Your task to perform on an android device: open app "Spotify: Music and Podcasts" Image 0: 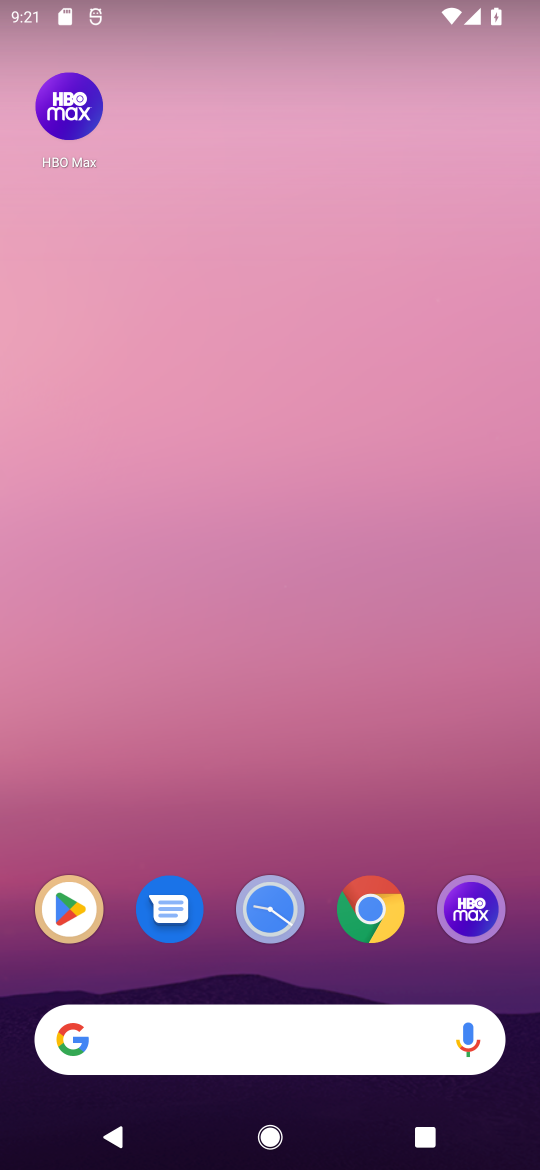
Step 0: press home button
Your task to perform on an android device: open app "Spotify: Music and Podcasts" Image 1: 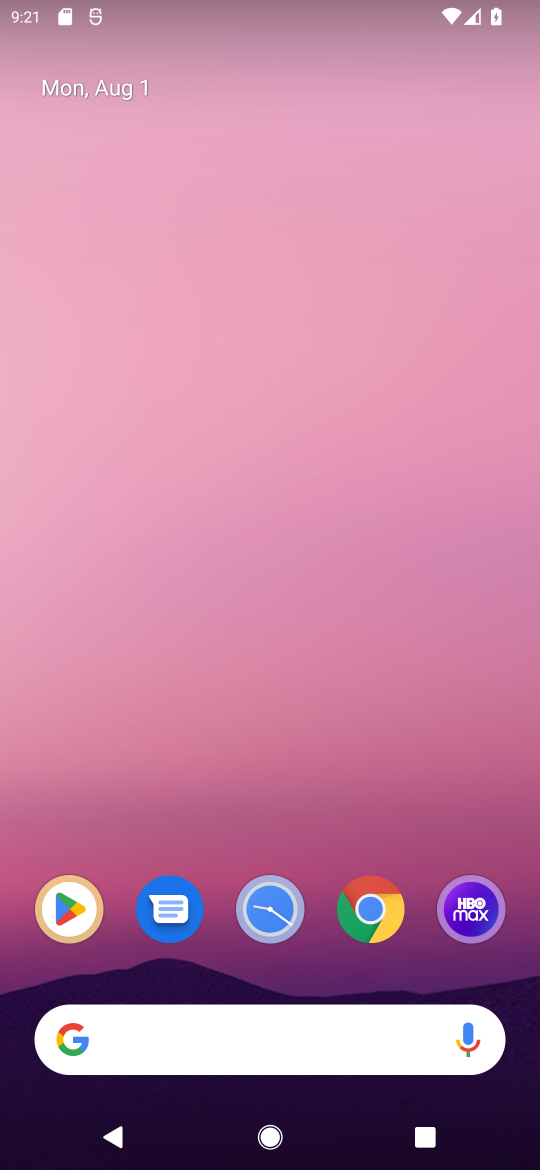
Step 1: click (77, 905)
Your task to perform on an android device: open app "Spotify: Music and Podcasts" Image 2: 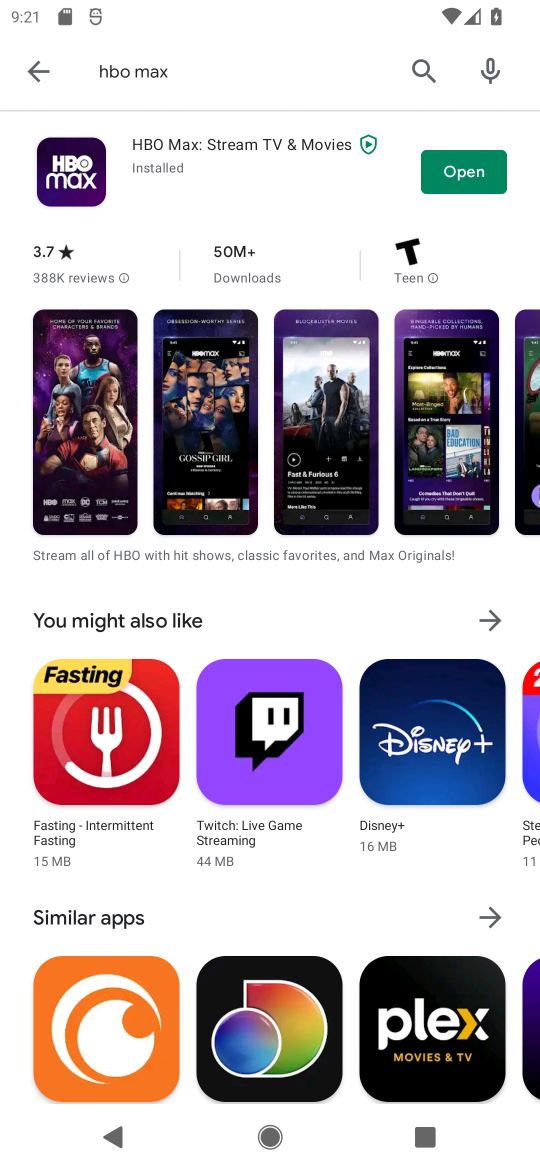
Step 2: click (218, 75)
Your task to perform on an android device: open app "Spotify: Music and Podcasts" Image 3: 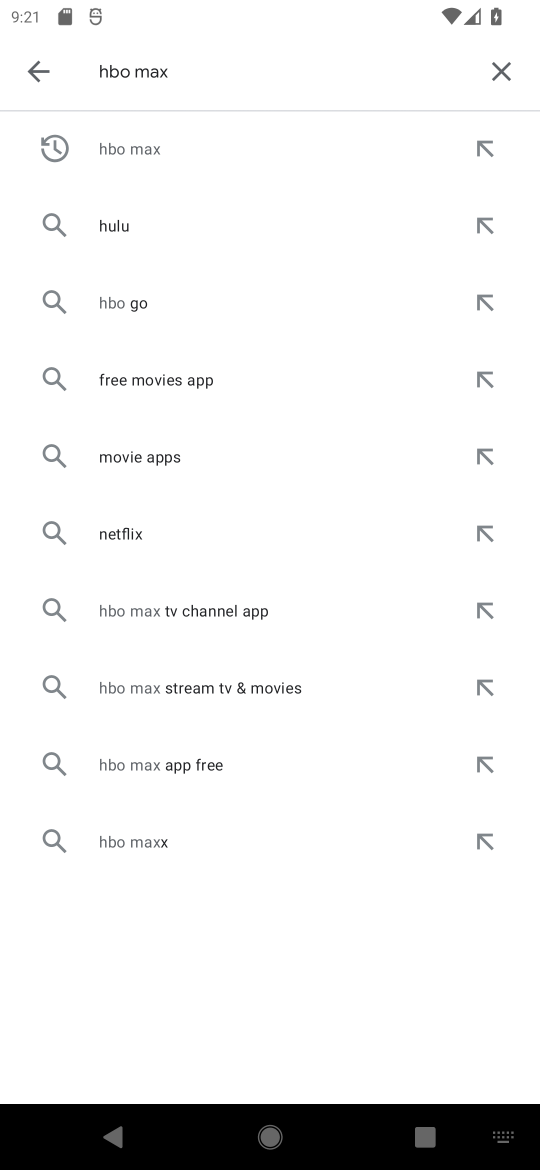
Step 3: click (491, 58)
Your task to perform on an android device: open app "Spotify: Music and Podcasts" Image 4: 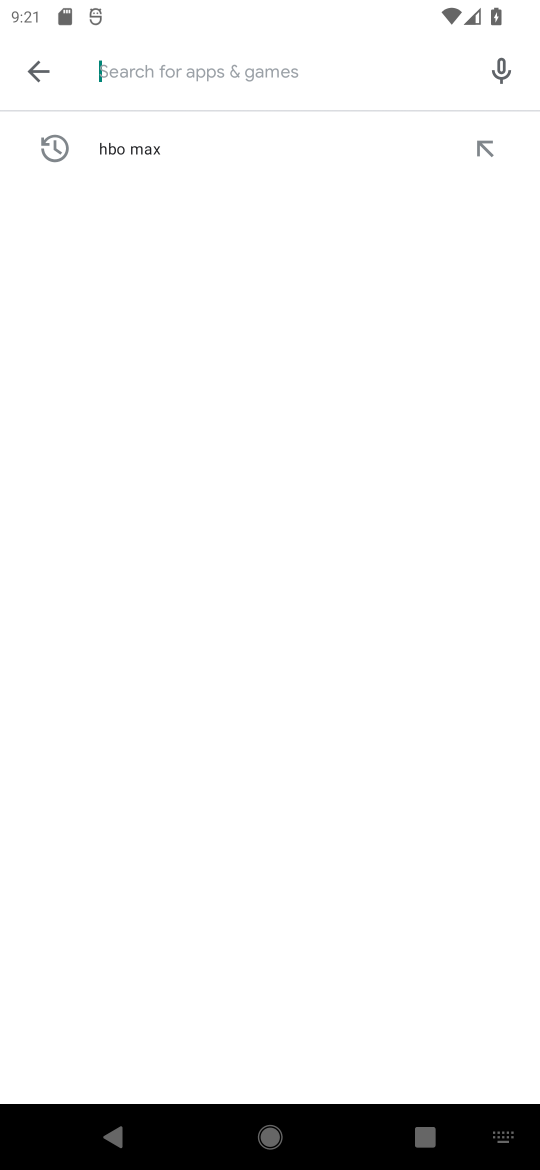
Step 4: type "spotify"
Your task to perform on an android device: open app "Spotify: Music and Podcasts" Image 5: 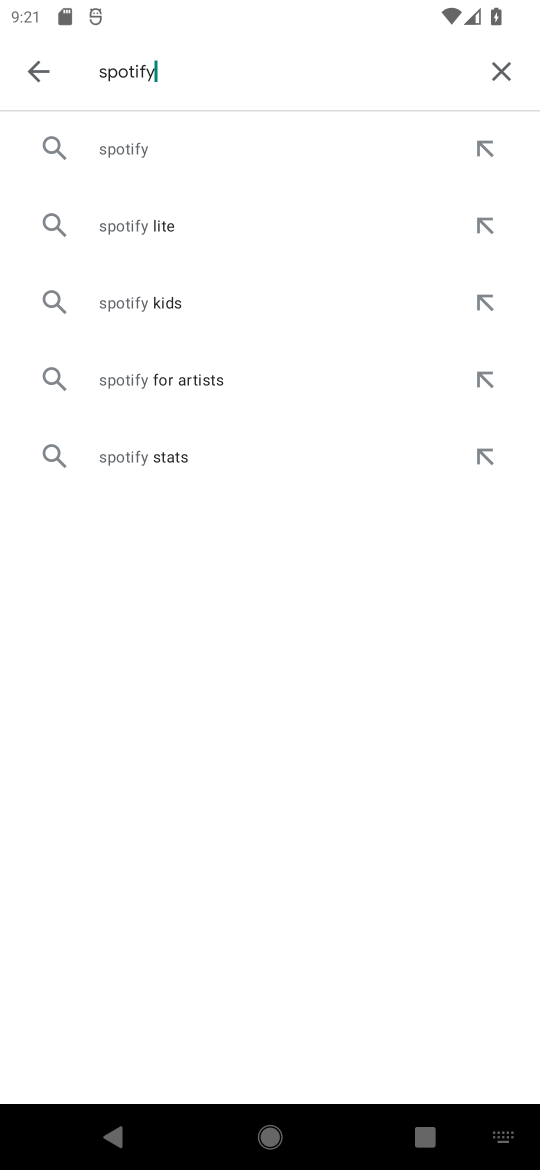
Step 5: click (130, 134)
Your task to perform on an android device: open app "Spotify: Music and Podcasts" Image 6: 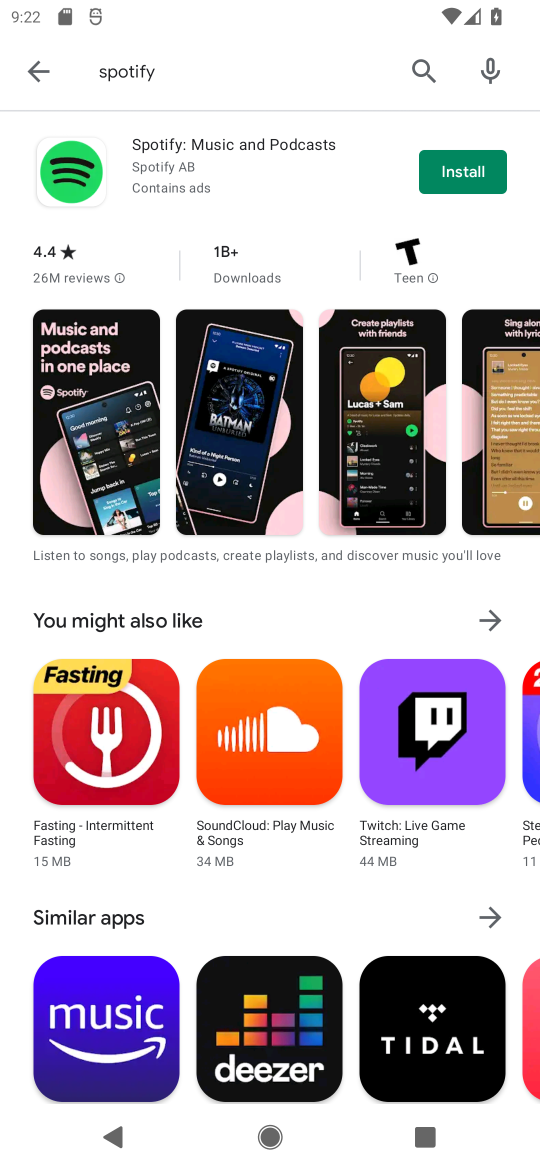
Step 6: task complete